Your task to perform on an android device: open a new tab in the chrome app Image 0: 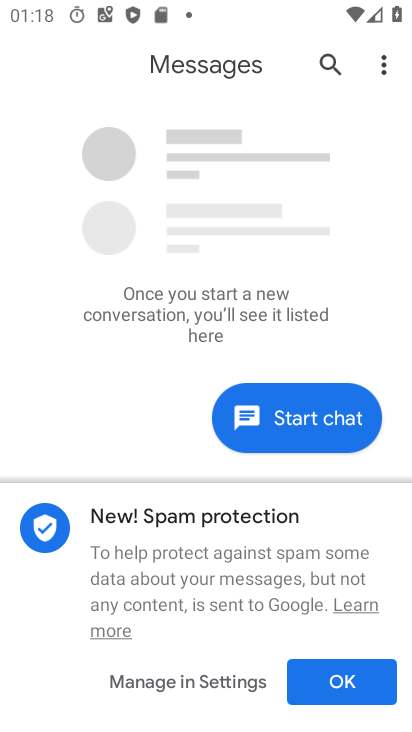
Step 0: press home button
Your task to perform on an android device: open a new tab in the chrome app Image 1: 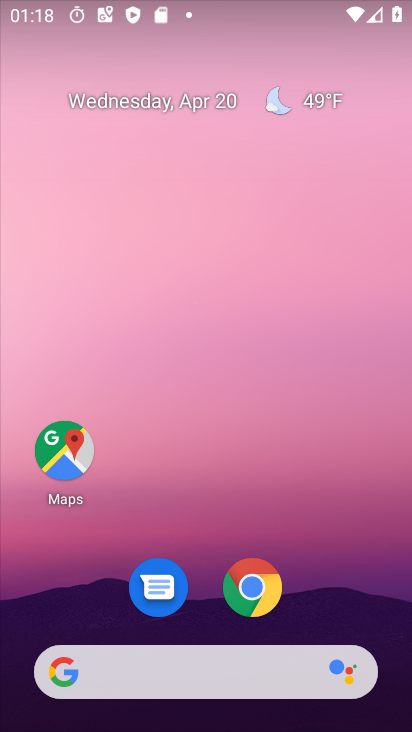
Step 1: click (256, 587)
Your task to perform on an android device: open a new tab in the chrome app Image 2: 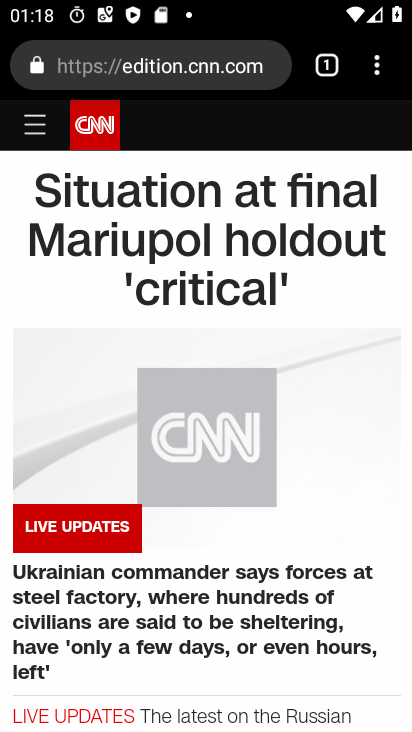
Step 2: click (376, 69)
Your task to perform on an android device: open a new tab in the chrome app Image 3: 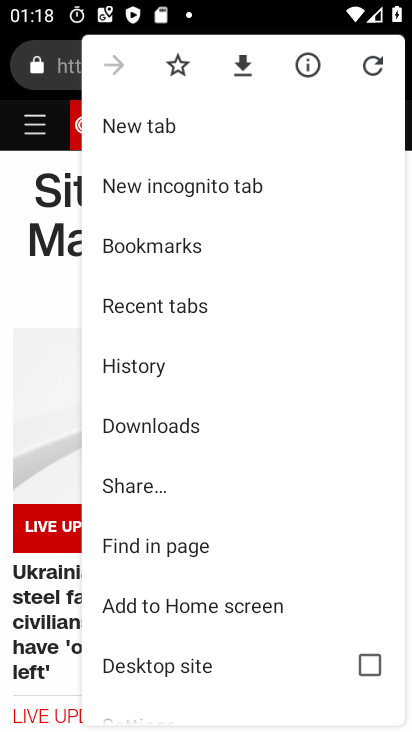
Step 3: click (149, 128)
Your task to perform on an android device: open a new tab in the chrome app Image 4: 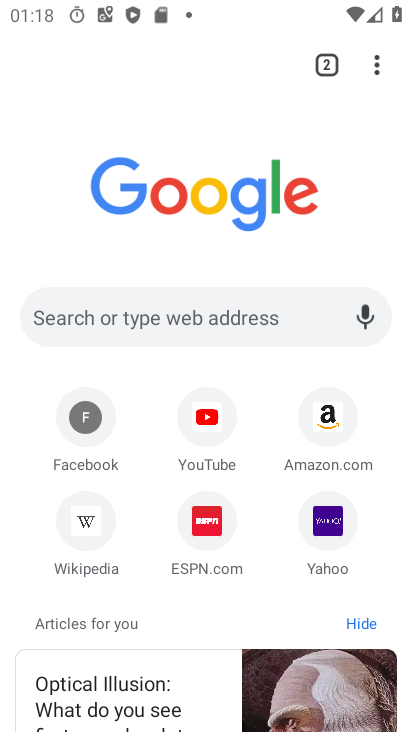
Step 4: task complete